Your task to perform on an android device: turn smart compose on in the gmail app Image 0: 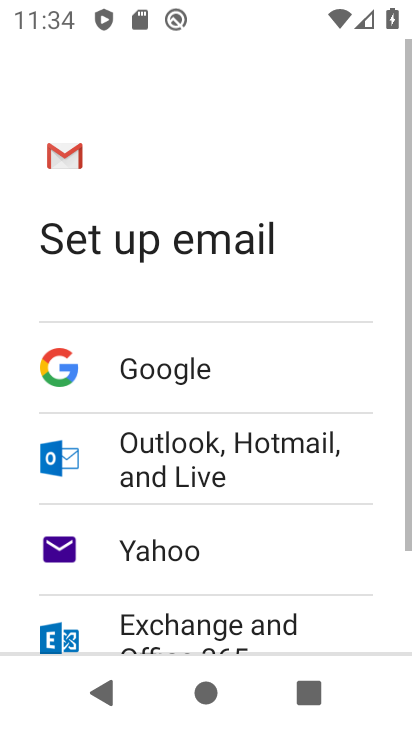
Step 0: press home button
Your task to perform on an android device: turn smart compose on in the gmail app Image 1: 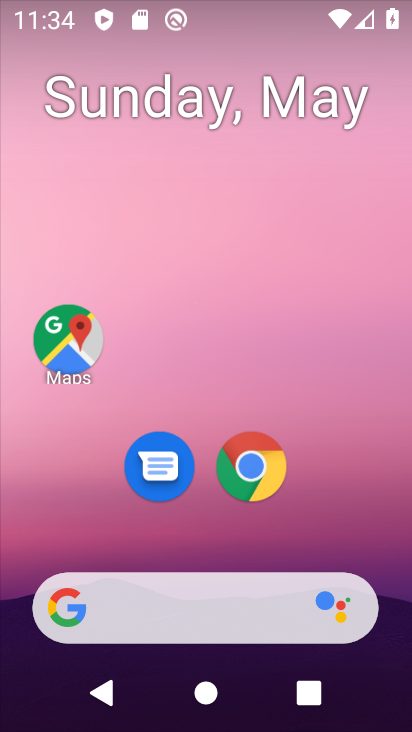
Step 1: drag from (348, 530) to (164, 1)
Your task to perform on an android device: turn smart compose on in the gmail app Image 2: 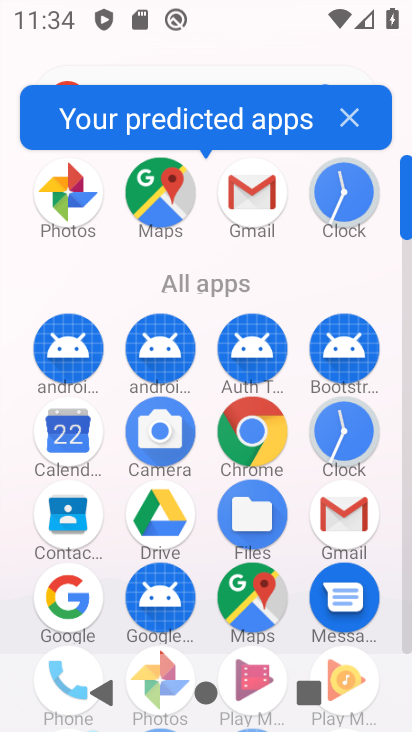
Step 2: click (338, 528)
Your task to perform on an android device: turn smart compose on in the gmail app Image 3: 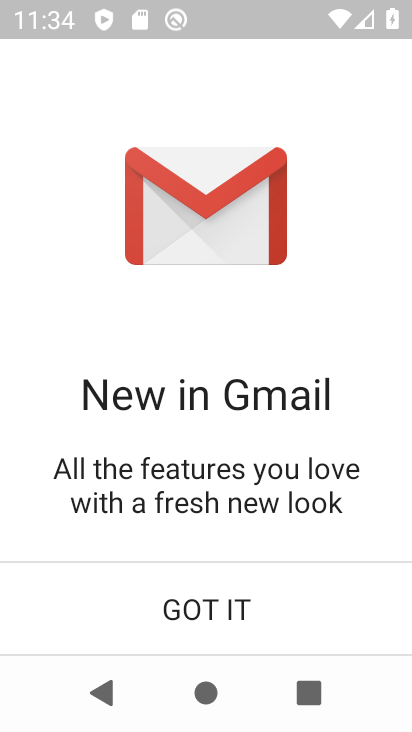
Step 3: click (202, 599)
Your task to perform on an android device: turn smart compose on in the gmail app Image 4: 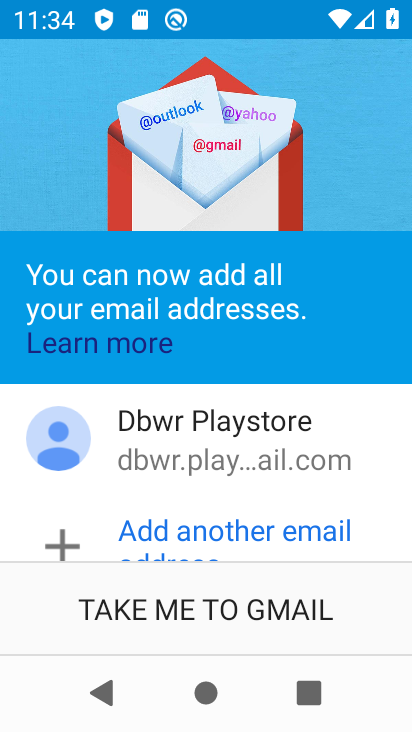
Step 4: click (202, 599)
Your task to perform on an android device: turn smart compose on in the gmail app Image 5: 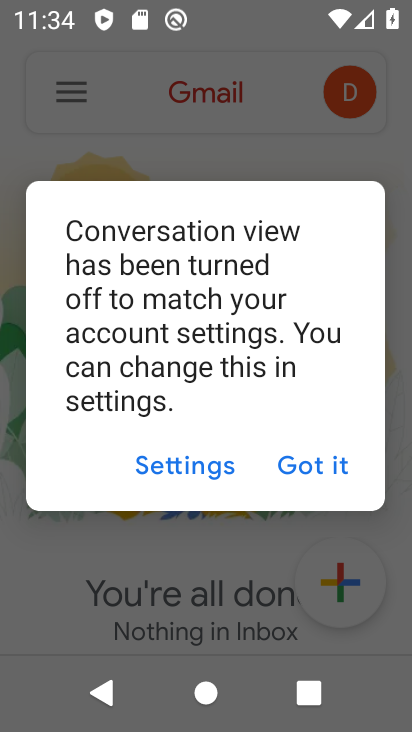
Step 5: click (297, 461)
Your task to perform on an android device: turn smart compose on in the gmail app Image 6: 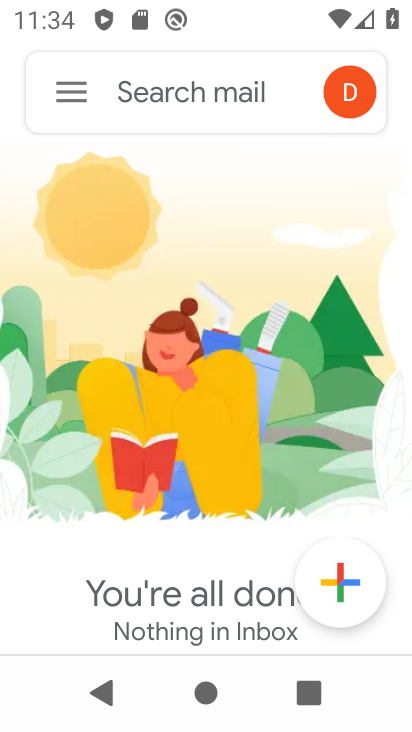
Step 6: click (63, 99)
Your task to perform on an android device: turn smart compose on in the gmail app Image 7: 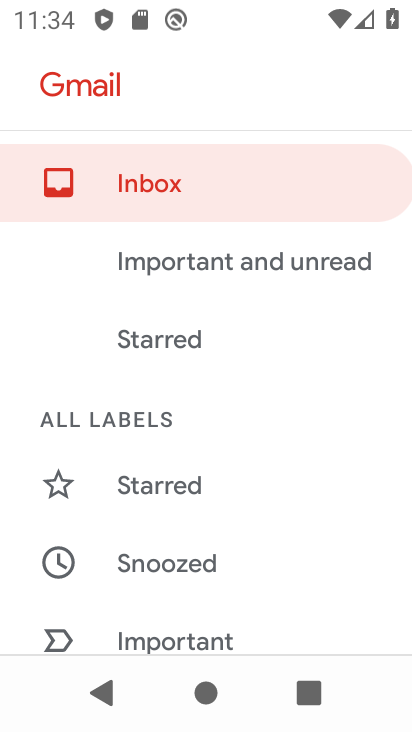
Step 7: drag from (319, 638) to (9, 118)
Your task to perform on an android device: turn smart compose on in the gmail app Image 8: 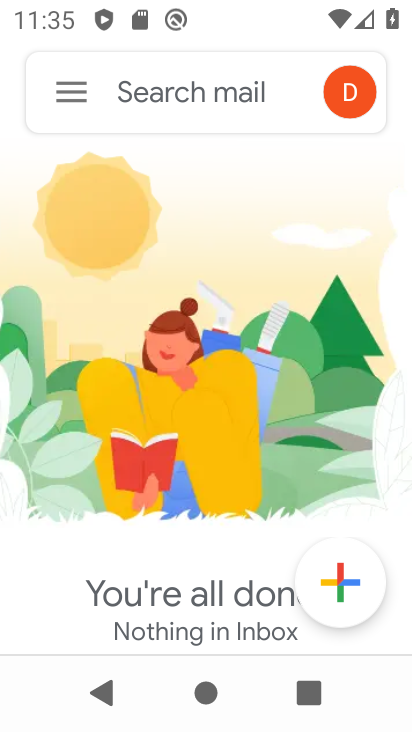
Step 8: click (57, 77)
Your task to perform on an android device: turn smart compose on in the gmail app Image 9: 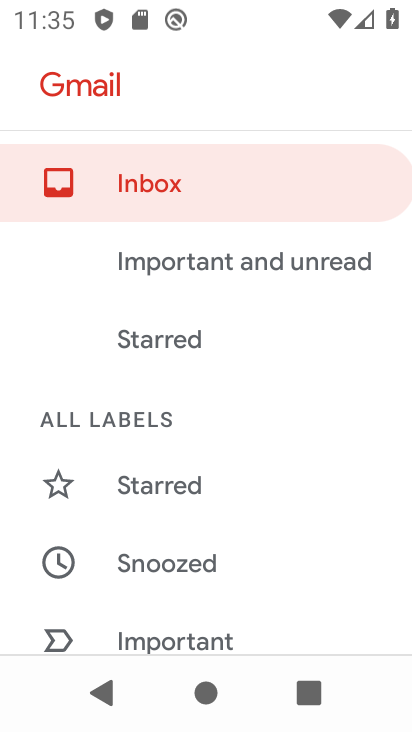
Step 9: drag from (200, 581) to (103, 147)
Your task to perform on an android device: turn smart compose on in the gmail app Image 10: 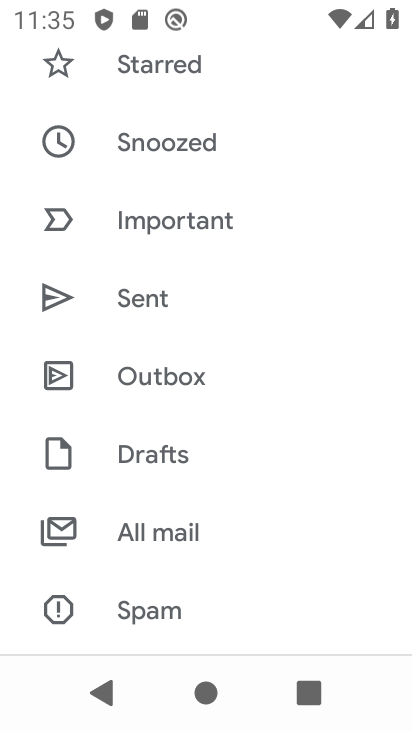
Step 10: drag from (116, 549) to (209, 105)
Your task to perform on an android device: turn smart compose on in the gmail app Image 11: 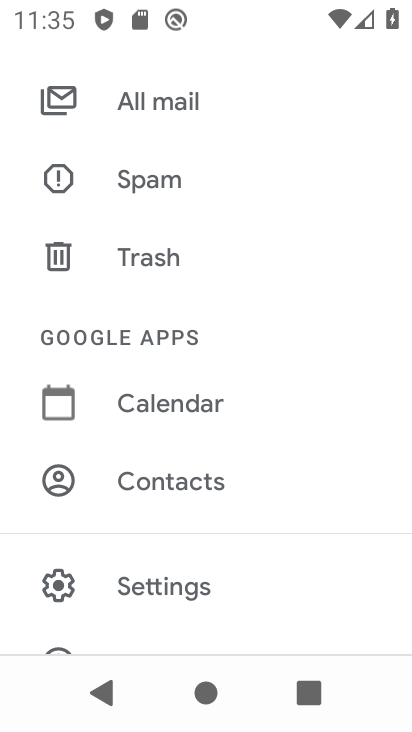
Step 11: click (202, 579)
Your task to perform on an android device: turn smart compose on in the gmail app Image 12: 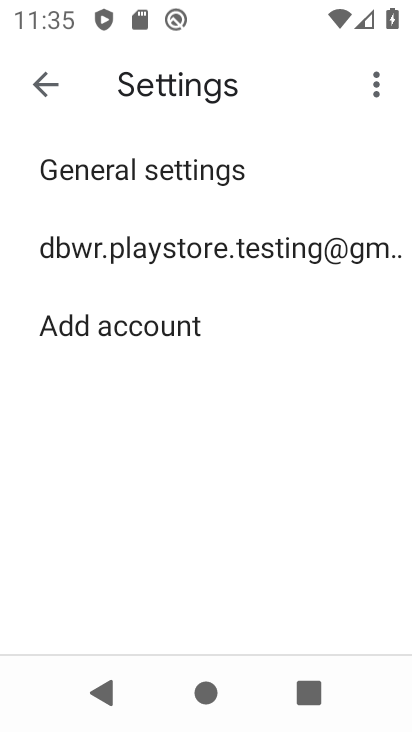
Step 12: click (147, 257)
Your task to perform on an android device: turn smart compose on in the gmail app Image 13: 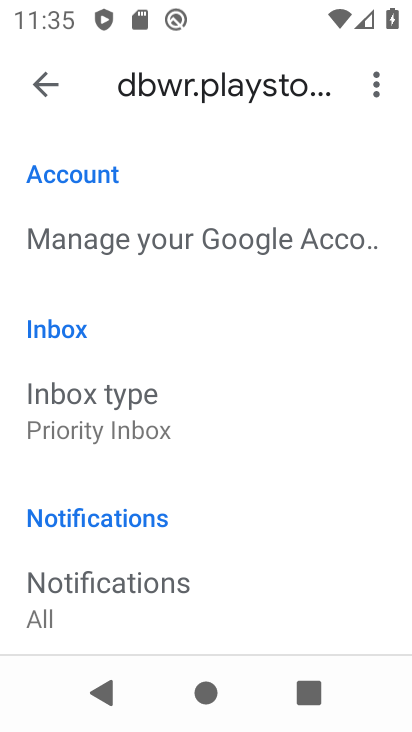
Step 13: task complete